Your task to perform on an android device: Open Yahoo.com Image 0: 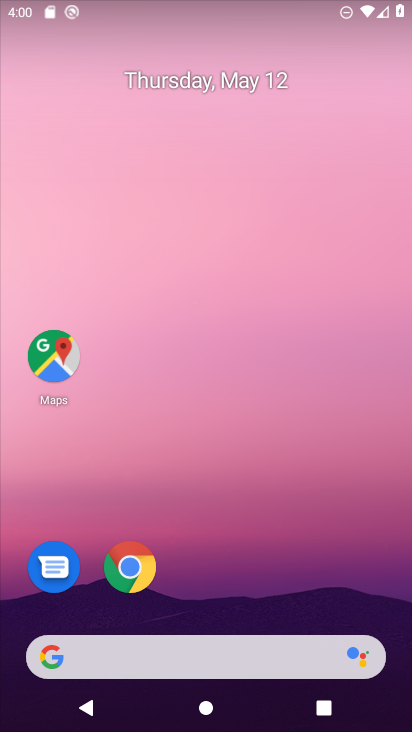
Step 0: click (111, 566)
Your task to perform on an android device: Open Yahoo.com Image 1: 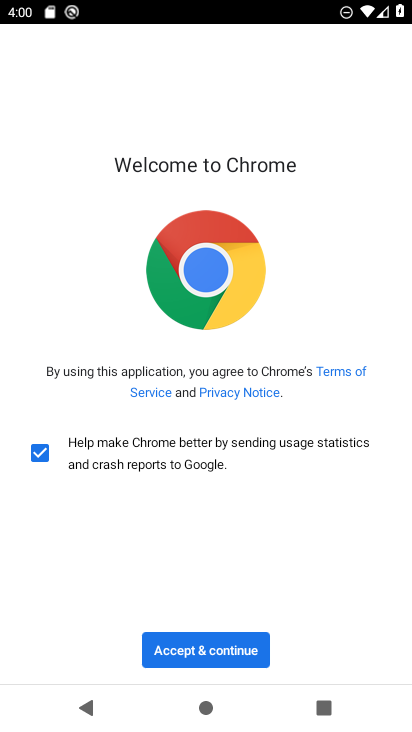
Step 1: click (274, 655)
Your task to perform on an android device: Open Yahoo.com Image 2: 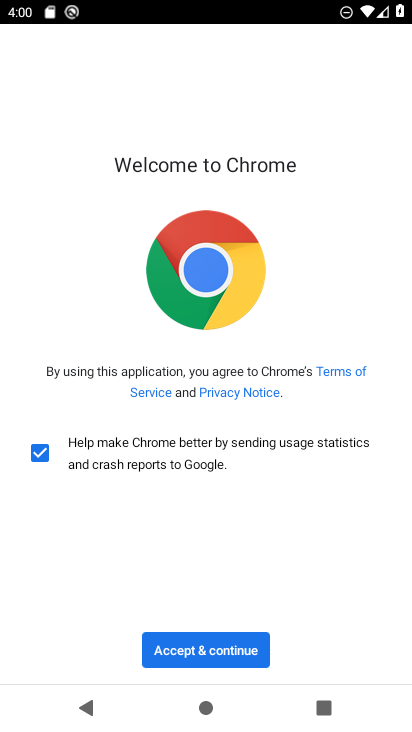
Step 2: click (244, 659)
Your task to perform on an android device: Open Yahoo.com Image 3: 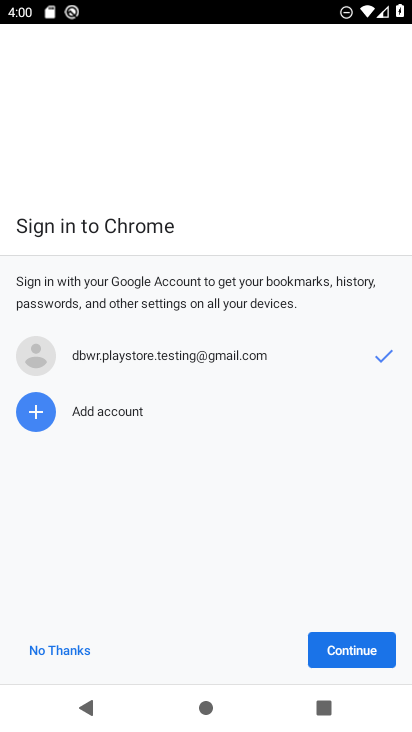
Step 3: click (337, 656)
Your task to perform on an android device: Open Yahoo.com Image 4: 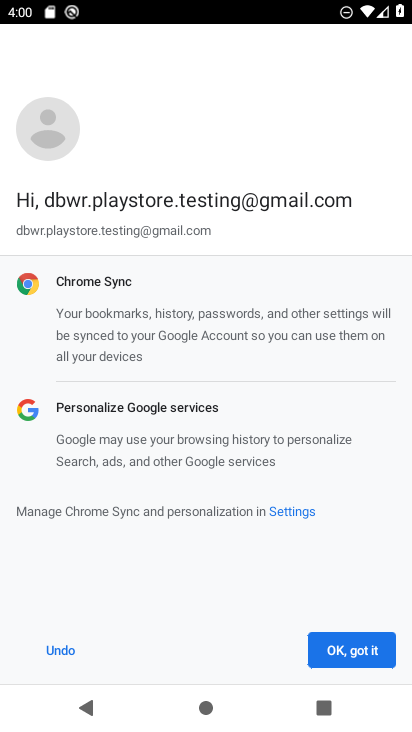
Step 4: click (338, 657)
Your task to perform on an android device: Open Yahoo.com Image 5: 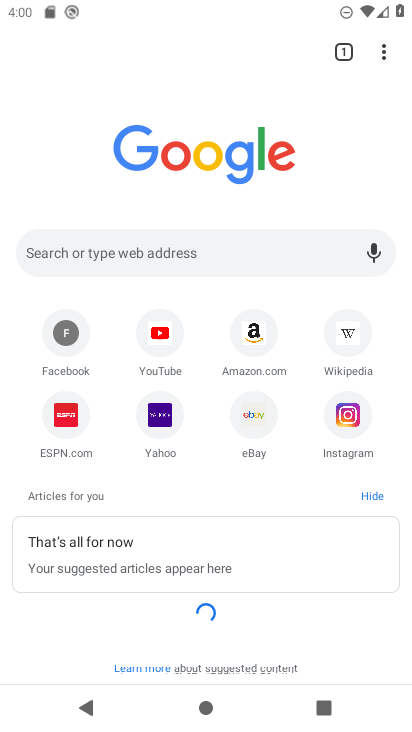
Step 5: click (176, 423)
Your task to perform on an android device: Open Yahoo.com Image 6: 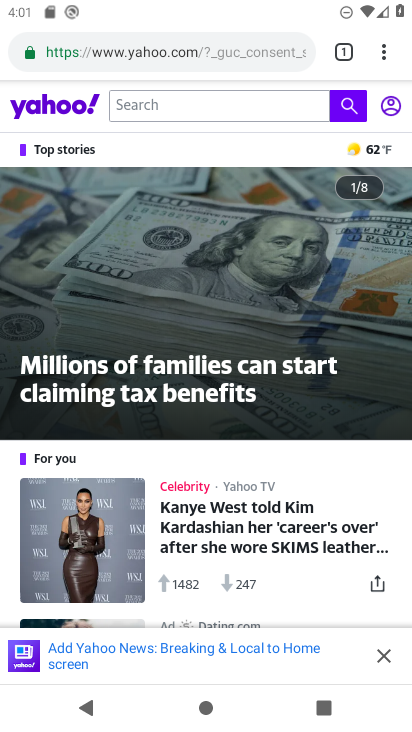
Step 6: task complete